Your task to perform on an android device: Open sound settings Image 0: 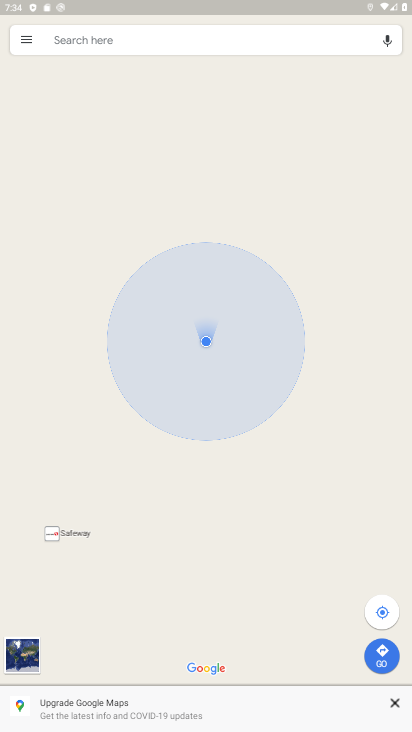
Step 0: press home button
Your task to perform on an android device: Open sound settings Image 1: 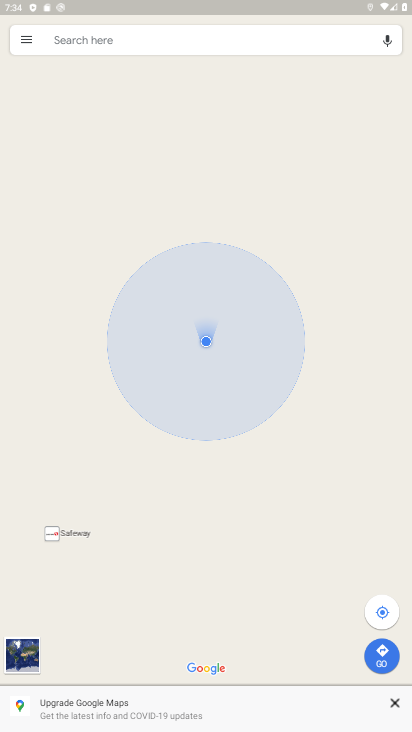
Step 1: drag from (182, 555) to (278, 62)
Your task to perform on an android device: Open sound settings Image 2: 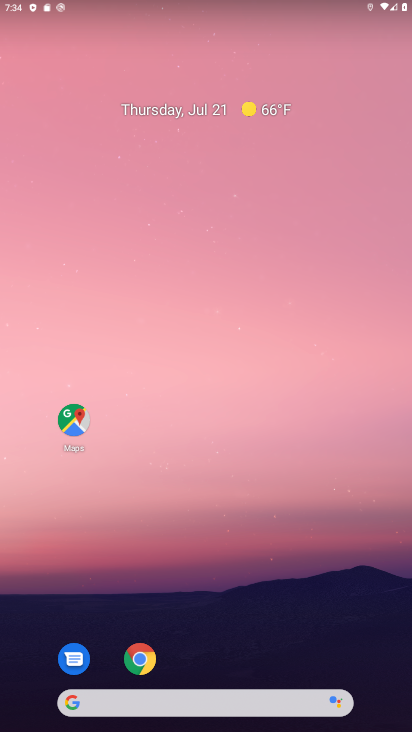
Step 2: drag from (168, 565) to (260, 113)
Your task to perform on an android device: Open sound settings Image 3: 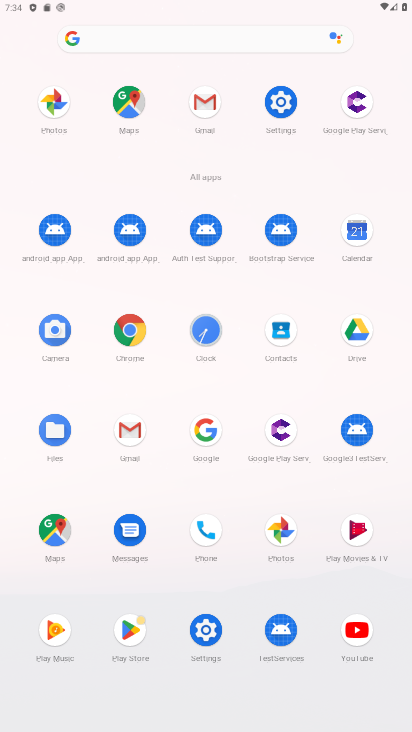
Step 3: click (221, 623)
Your task to perform on an android device: Open sound settings Image 4: 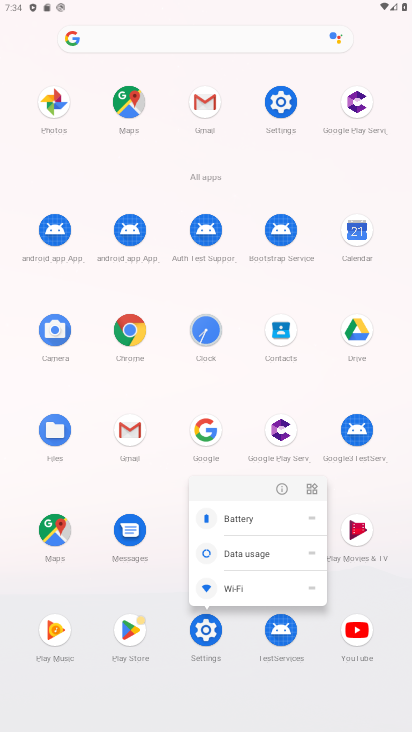
Step 4: click (278, 481)
Your task to perform on an android device: Open sound settings Image 5: 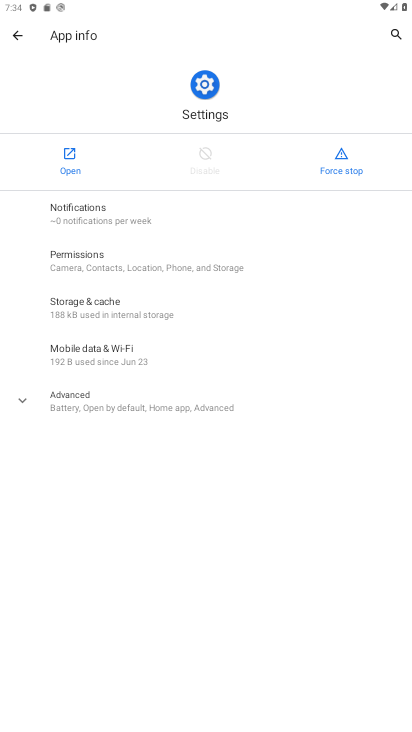
Step 5: click (59, 167)
Your task to perform on an android device: Open sound settings Image 6: 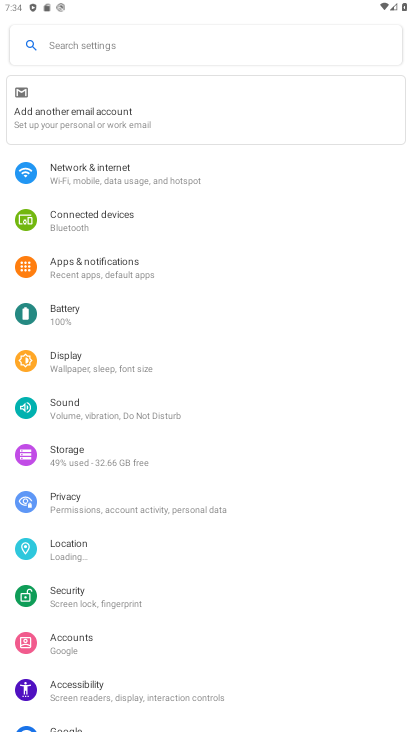
Step 6: click (109, 412)
Your task to perform on an android device: Open sound settings Image 7: 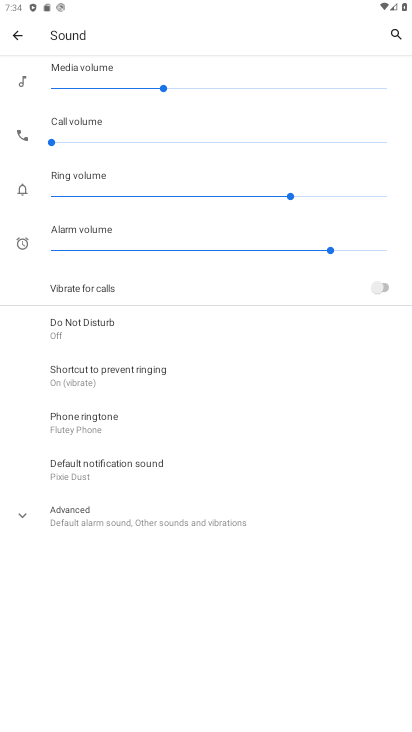
Step 7: task complete